Your task to perform on an android device: turn on notifications settings in the gmail app Image 0: 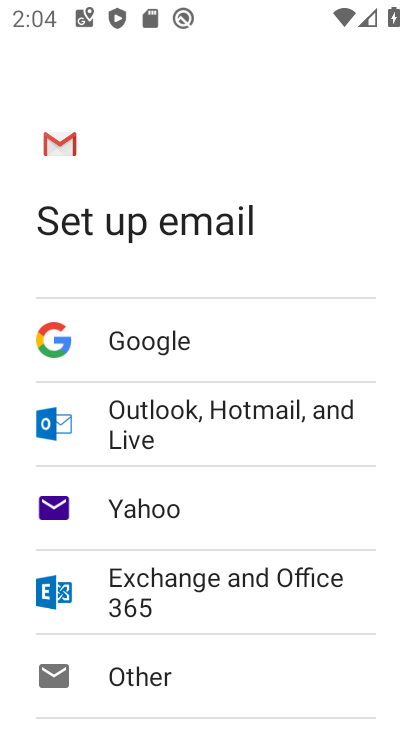
Step 0: press home button
Your task to perform on an android device: turn on notifications settings in the gmail app Image 1: 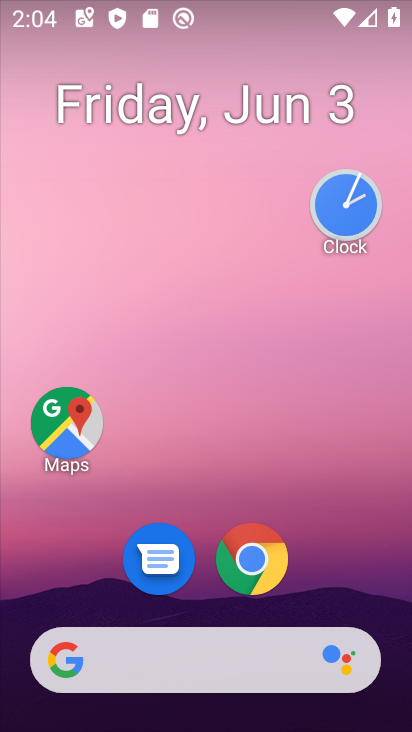
Step 1: drag from (386, 569) to (391, 169)
Your task to perform on an android device: turn on notifications settings in the gmail app Image 2: 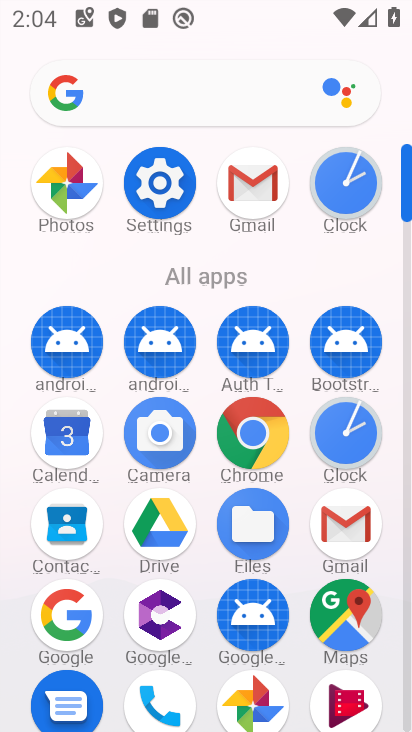
Step 2: click (326, 518)
Your task to perform on an android device: turn on notifications settings in the gmail app Image 3: 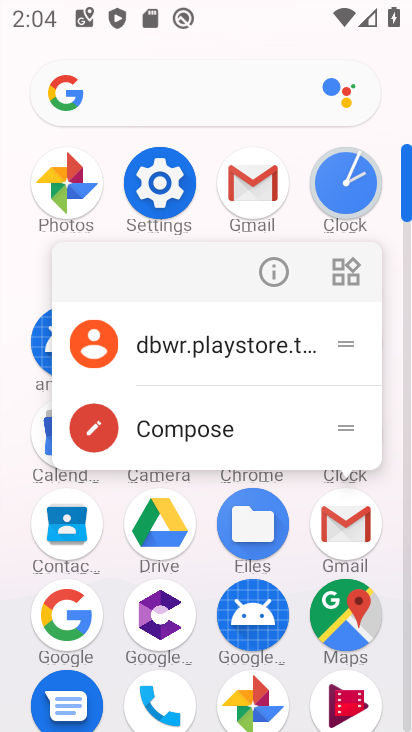
Step 3: click (271, 281)
Your task to perform on an android device: turn on notifications settings in the gmail app Image 4: 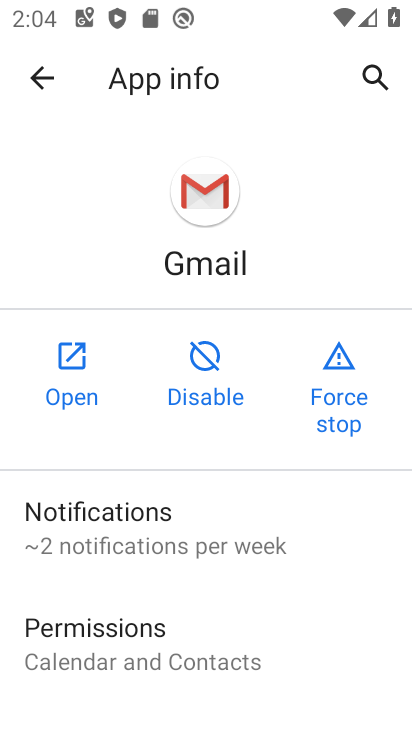
Step 4: click (231, 524)
Your task to perform on an android device: turn on notifications settings in the gmail app Image 5: 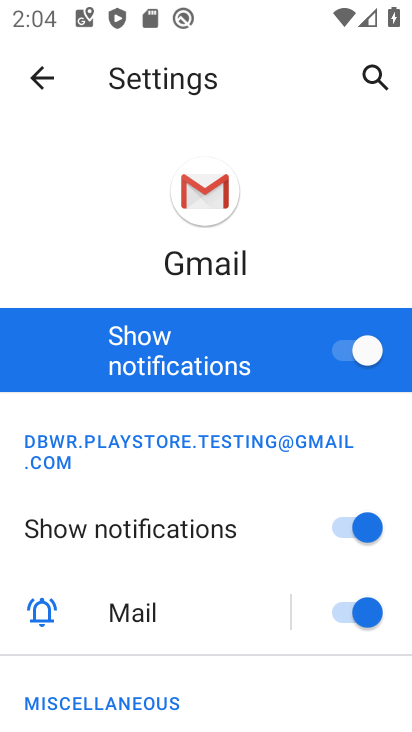
Step 5: task complete